Your task to perform on an android device: change notification settings in the gmail app Image 0: 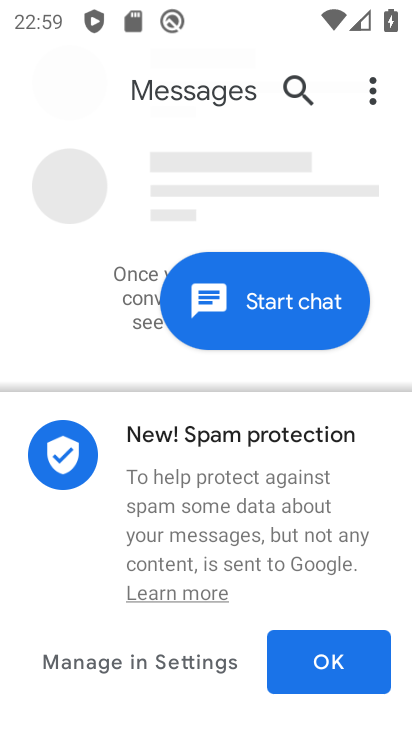
Step 0: press back button
Your task to perform on an android device: change notification settings in the gmail app Image 1: 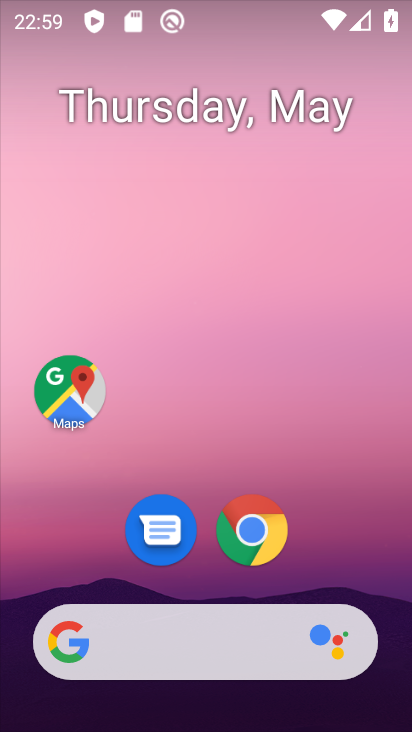
Step 1: drag from (334, 565) to (269, 82)
Your task to perform on an android device: change notification settings in the gmail app Image 2: 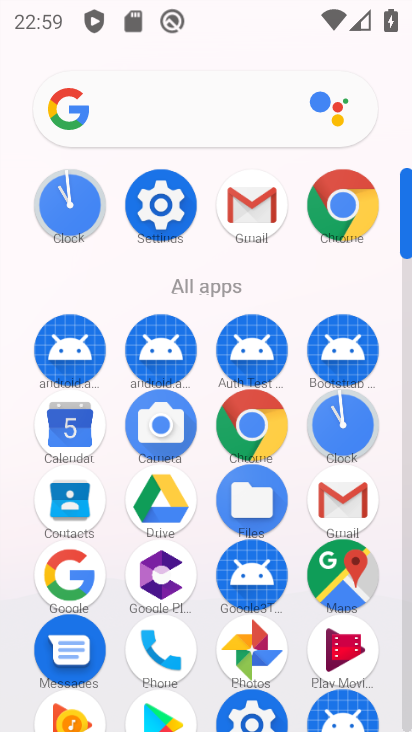
Step 2: click (252, 200)
Your task to perform on an android device: change notification settings in the gmail app Image 3: 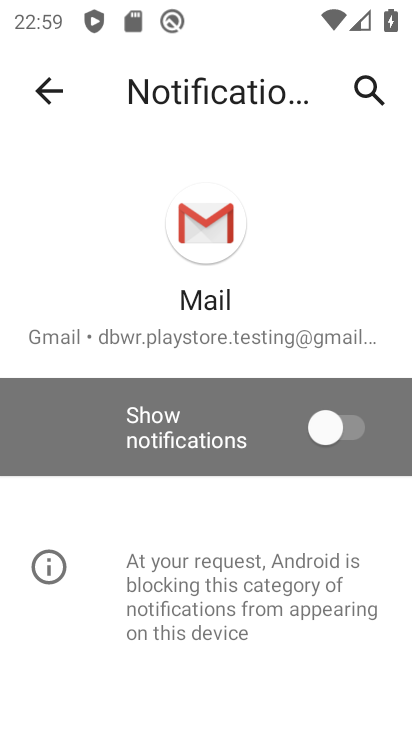
Step 3: click (338, 428)
Your task to perform on an android device: change notification settings in the gmail app Image 4: 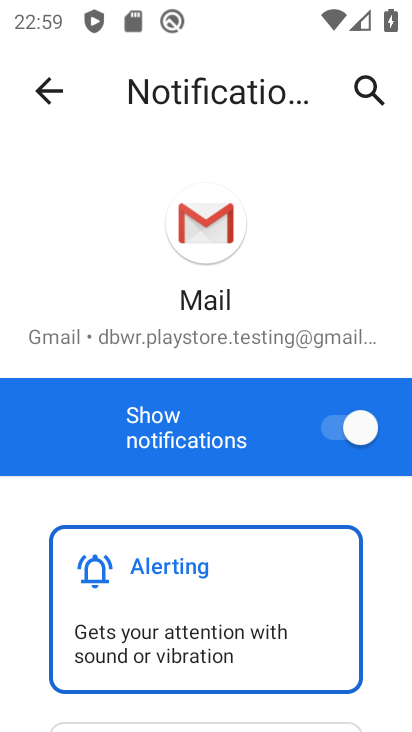
Step 4: task complete